Your task to perform on an android device: open a bookmark in the chrome app Image 0: 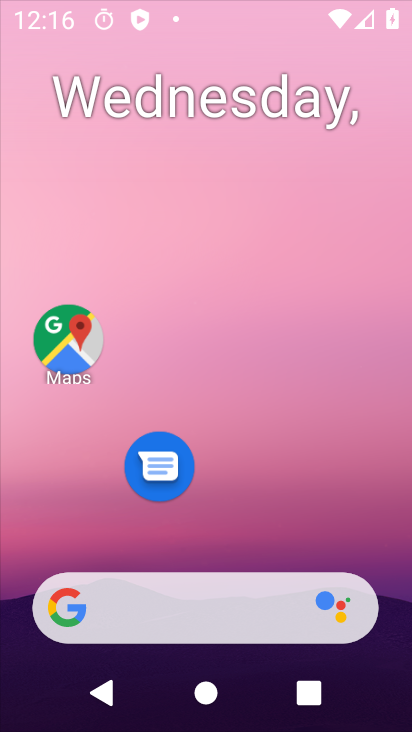
Step 0: drag from (226, 518) to (225, 309)
Your task to perform on an android device: open a bookmark in the chrome app Image 1: 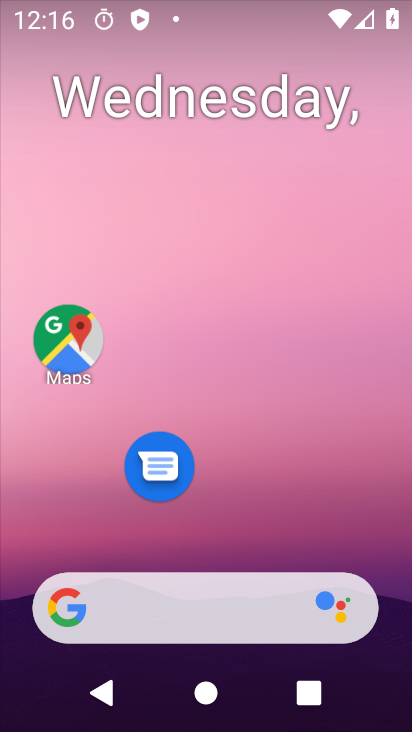
Step 1: drag from (261, 504) to (289, 63)
Your task to perform on an android device: open a bookmark in the chrome app Image 2: 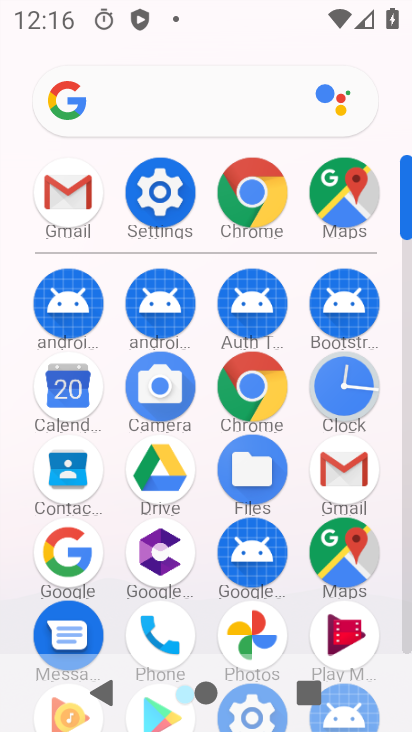
Step 2: click (254, 173)
Your task to perform on an android device: open a bookmark in the chrome app Image 3: 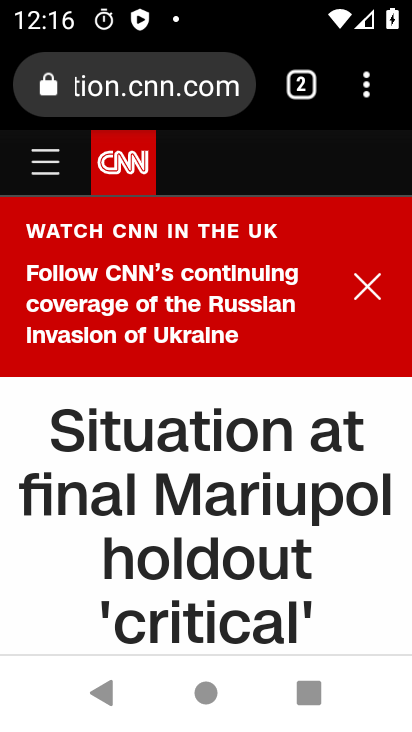
Step 3: click (358, 90)
Your task to perform on an android device: open a bookmark in the chrome app Image 4: 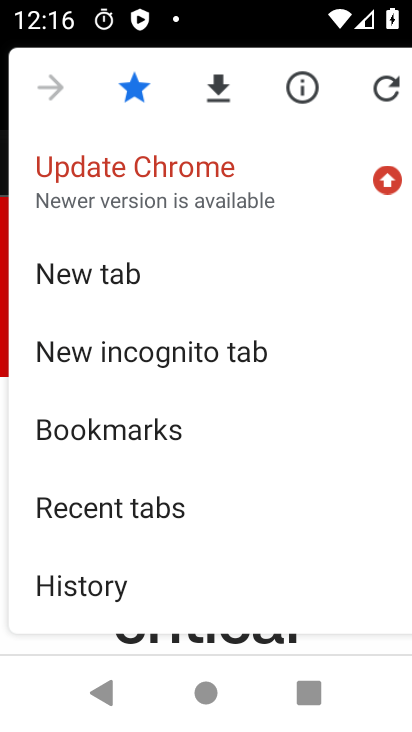
Step 4: click (171, 444)
Your task to perform on an android device: open a bookmark in the chrome app Image 5: 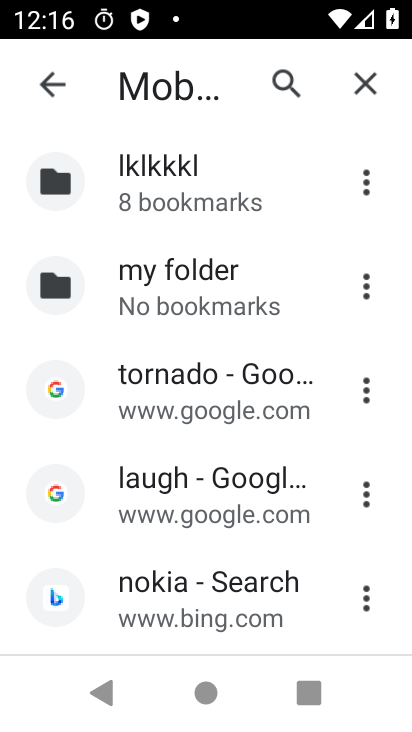
Step 5: click (152, 478)
Your task to perform on an android device: open a bookmark in the chrome app Image 6: 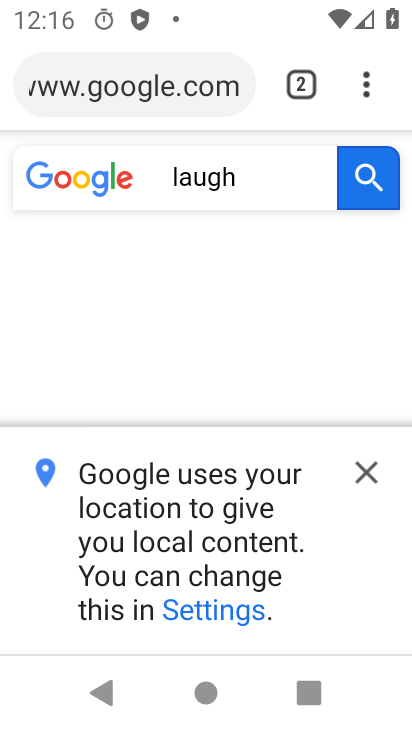
Step 6: task complete